Your task to perform on an android device: Open Google Maps Image 0: 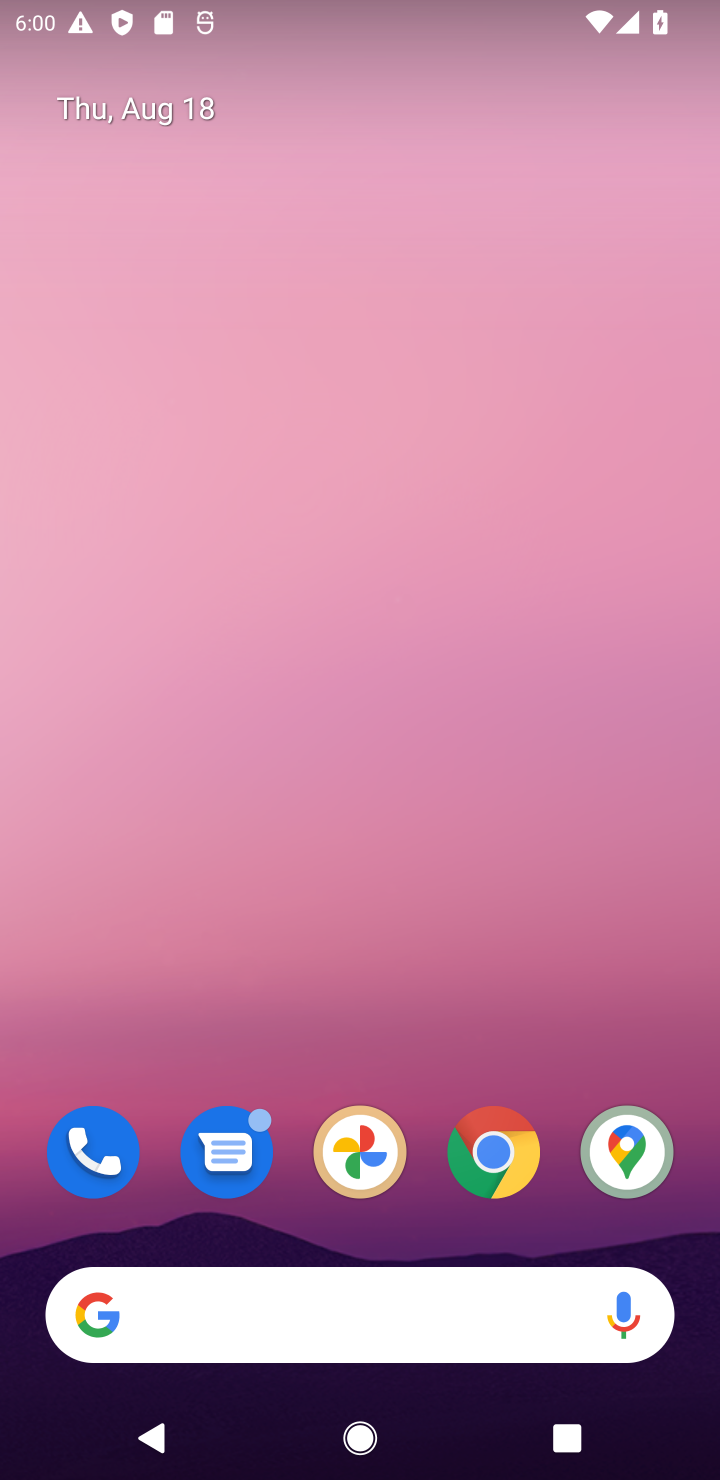
Step 0: drag from (490, 1068) to (503, 155)
Your task to perform on an android device: Open Google Maps Image 1: 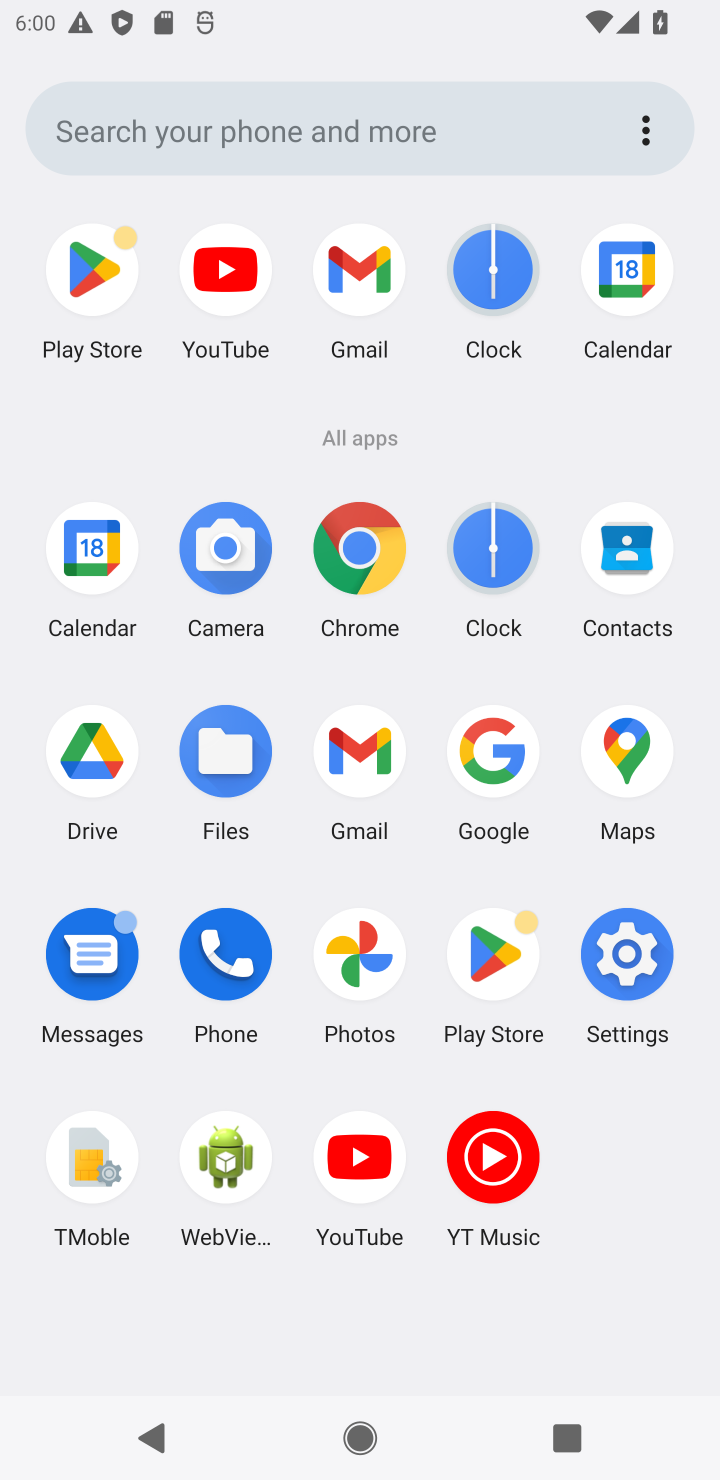
Step 1: click (632, 749)
Your task to perform on an android device: Open Google Maps Image 2: 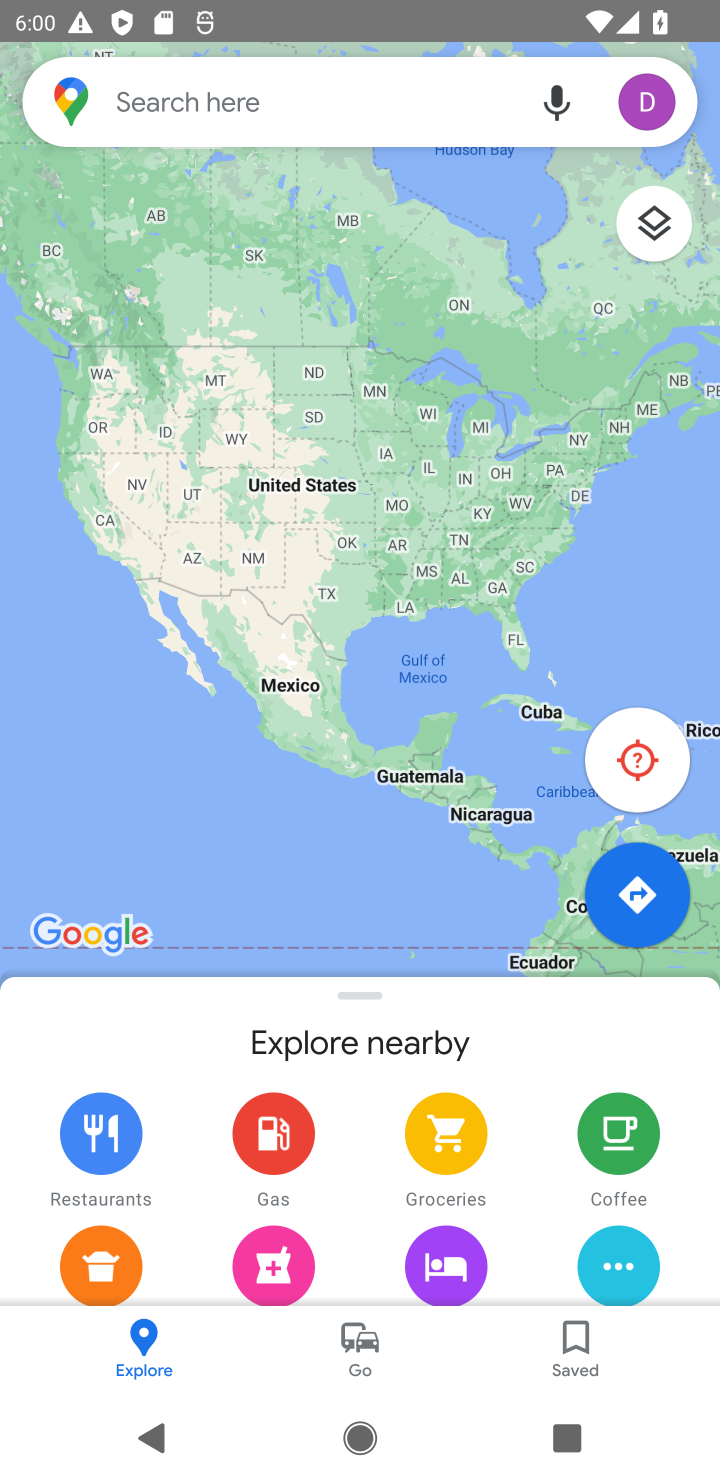
Step 2: task complete